Your task to perform on an android device: turn off smart reply in the gmail app Image 0: 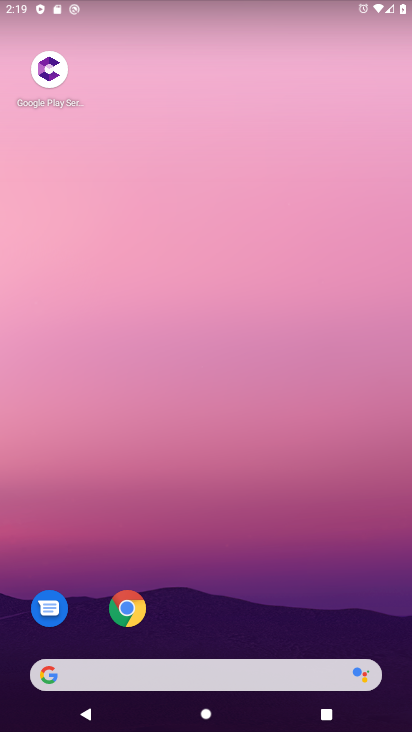
Step 0: drag from (258, 724) to (261, 109)
Your task to perform on an android device: turn off smart reply in the gmail app Image 1: 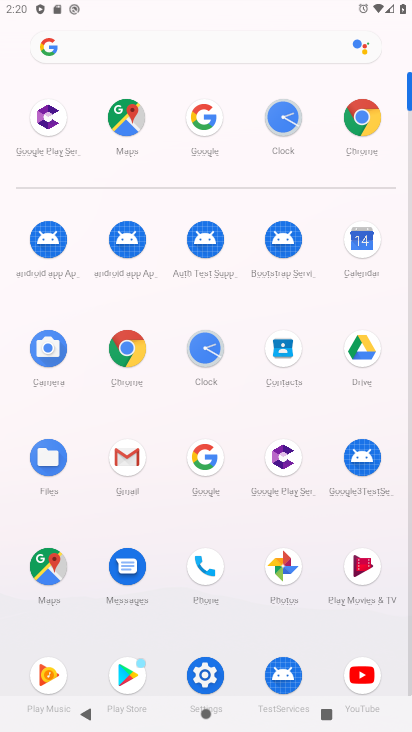
Step 1: click (124, 449)
Your task to perform on an android device: turn off smart reply in the gmail app Image 2: 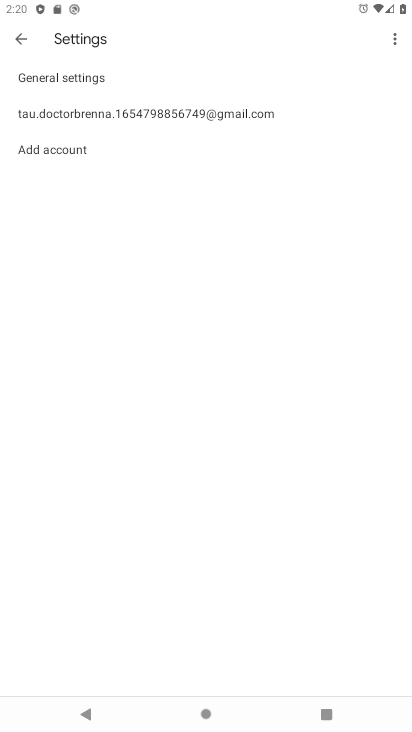
Step 2: click (109, 116)
Your task to perform on an android device: turn off smart reply in the gmail app Image 3: 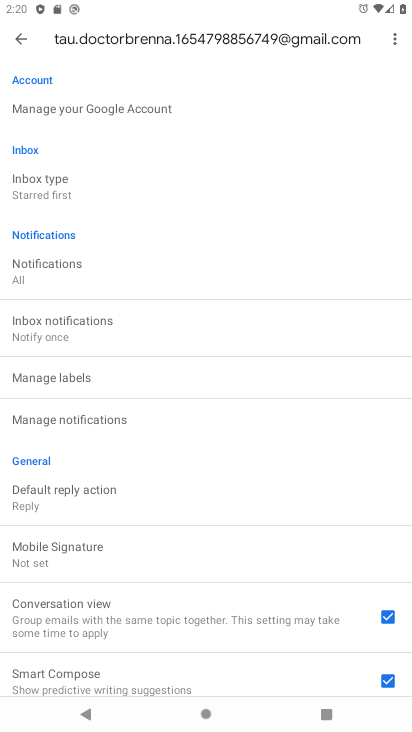
Step 3: drag from (131, 669) to (151, 379)
Your task to perform on an android device: turn off smart reply in the gmail app Image 4: 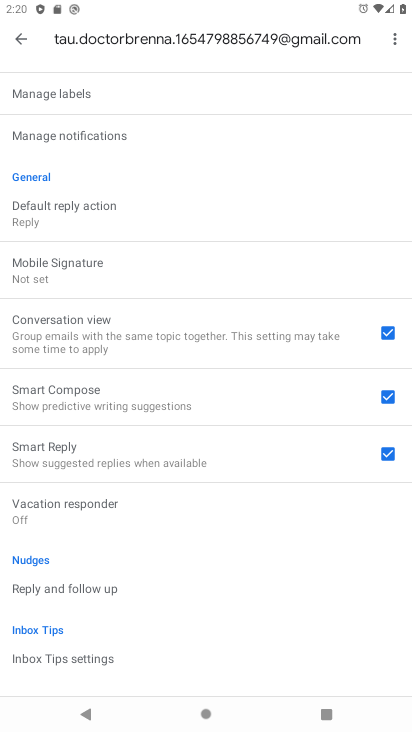
Step 4: click (385, 448)
Your task to perform on an android device: turn off smart reply in the gmail app Image 5: 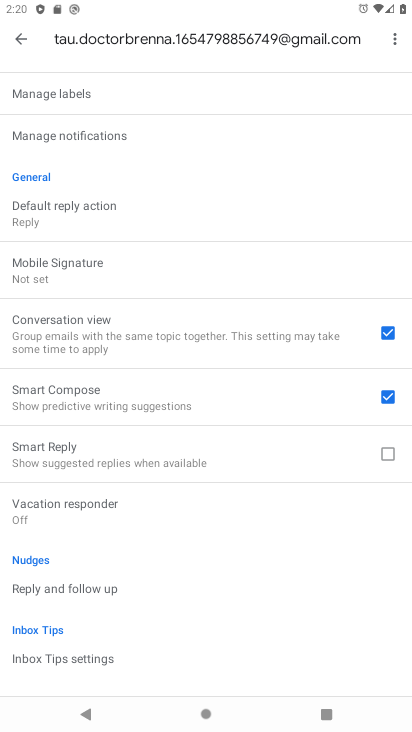
Step 5: task complete